Your task to perform on an android device: Search for sushi restaurants on Maps Image 0: 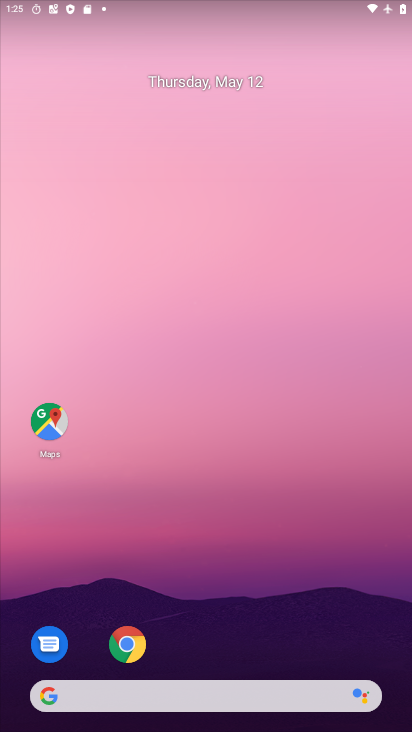
Step 0: drag from (273, 602) to (239, 167)
Your task to perform on an android device: Search for sushi restaurants on Maps Image 1: 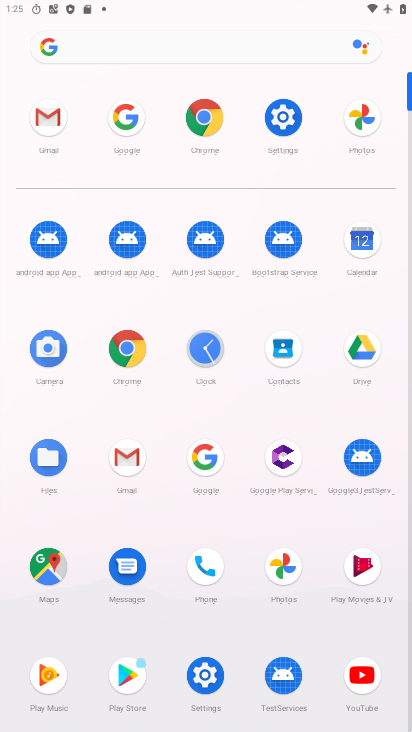
Step 1: click (49, 566)
Your task to perform on an android device: Search for sushi restaurants on Maps Image 2: 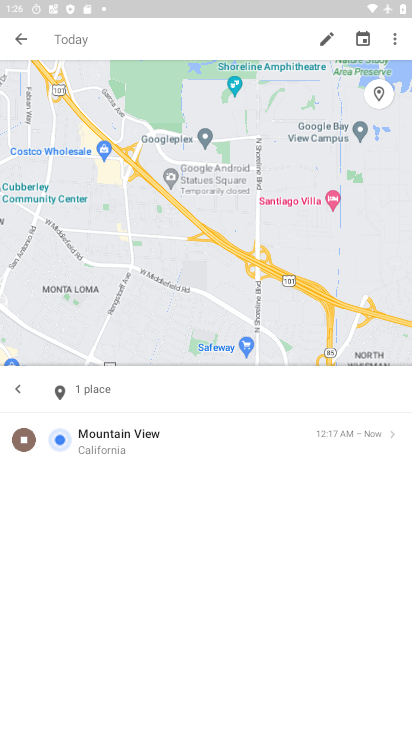
Step 2: click (18, 36)
Your task to perform on an android device: Search for sushi restaurants on Maps Image 3: 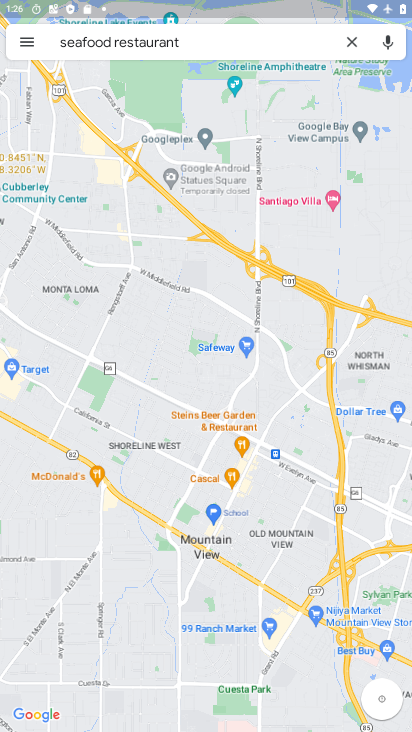
Step 3: click (349, 44)
Your task to perform on an android device: Search for sushi restaurants on Maps Image 4: 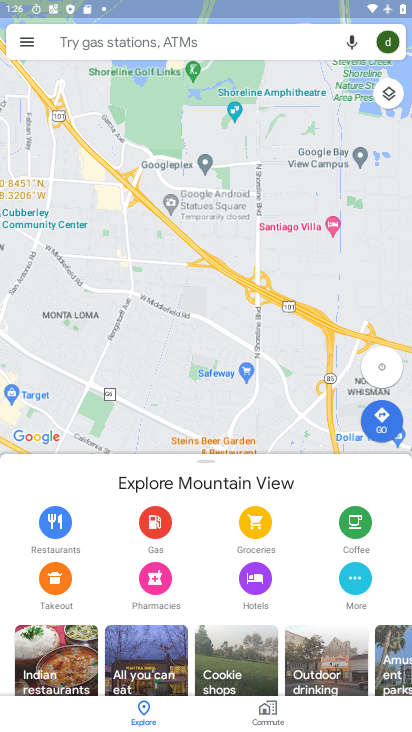
Step 4: click (157, 42)
Your task to perform on an android device: Search for sushi restaurants on Maps Image 5: 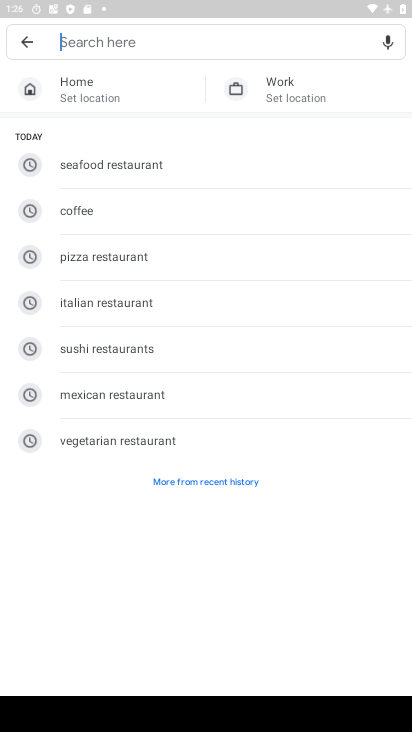
Step 5: click (89, 347)
Your task to perform on an android device: Search for sushi restaurants on Maps Image 6: 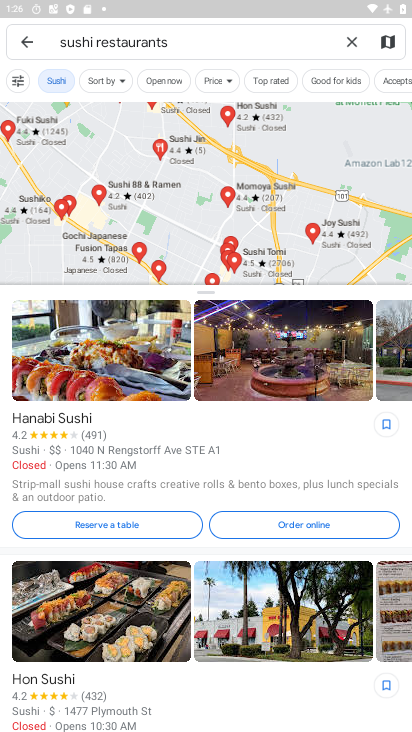
Step 6: task complete